Your task to perform on an android device: Open network settings Image 0: 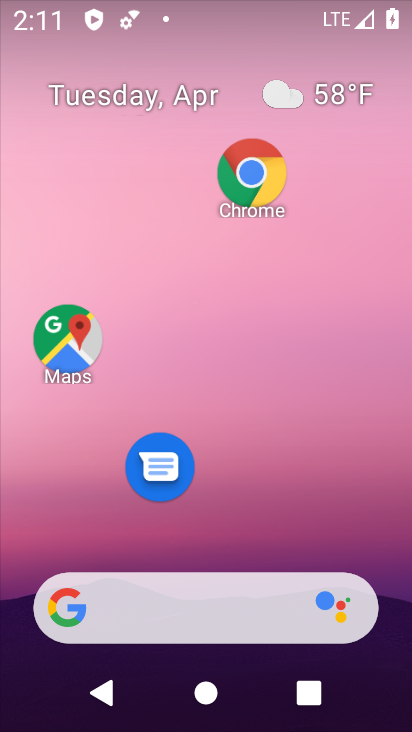
Step 0: drag from (307, 588) to (320, 103)
Your task to perform on an android device: Open network settings Image 1: 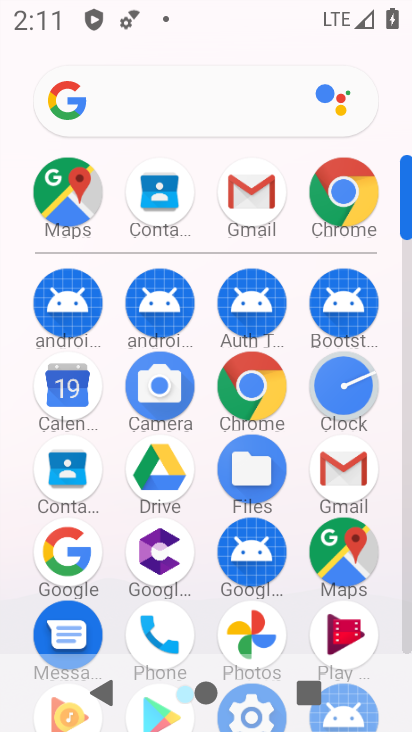
Step 1: drag from (296, 606) to (312, 179)
Your task to perform on an android device: Open network settings Image 2: 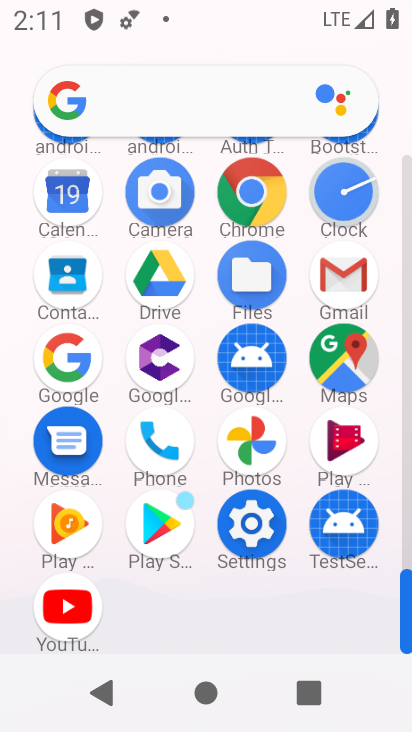
Step 2: click (253, 539)
Your task to perform on an android device: Open network settings Image 3: 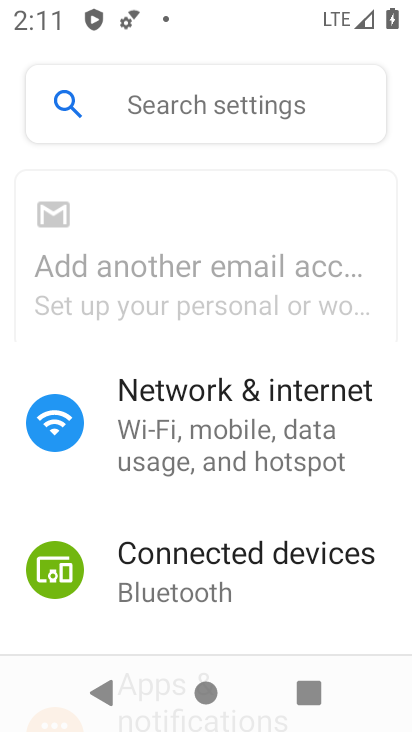
Step 3: click (284, 252)
Your task to perform on an android device: Open network settings Image 4: 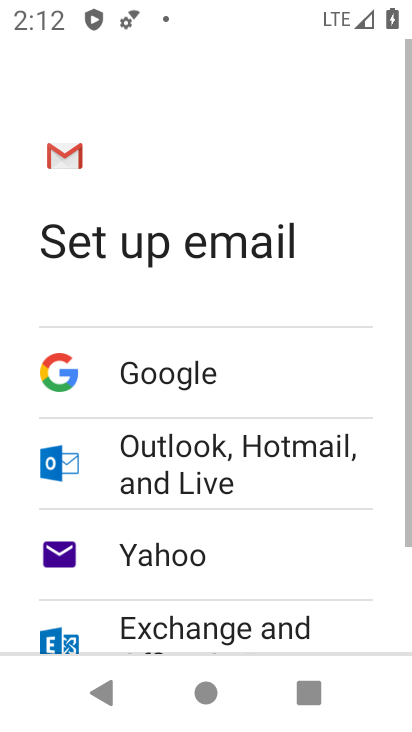
Step 4: click (90, 696)
Your task to perform on an android device: Open network settings Image 5: 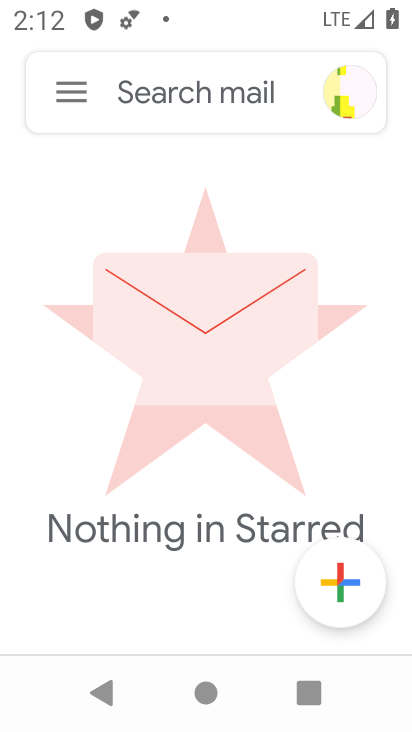
Step 5: press back button
Your task to perform on an android device: Open network settings Image 6: 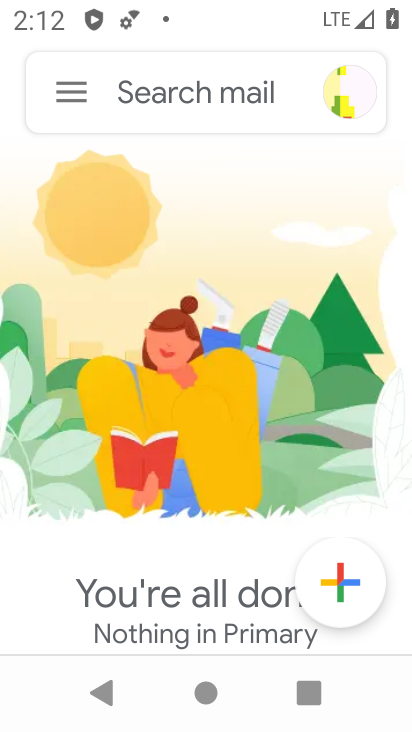
Step 6: press home button
Your task to perform on an android device: Open network settings Image 7: 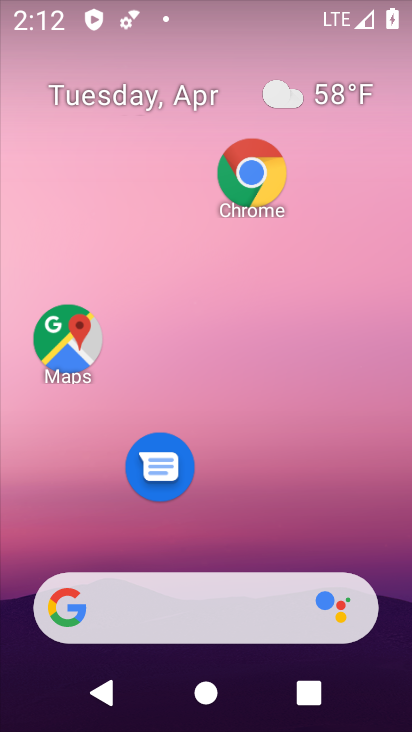
Step 7: drag from (256, 636) to (320, 147)
Your task to perform on an android device: Open network settings Image 8: 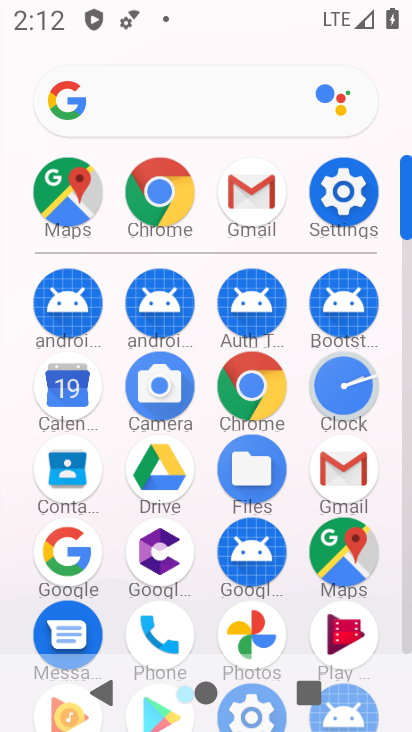
Step 8: drag from (284, 598) to (307, 88)
Your task to perform on an android device: Open network settings Image 9: 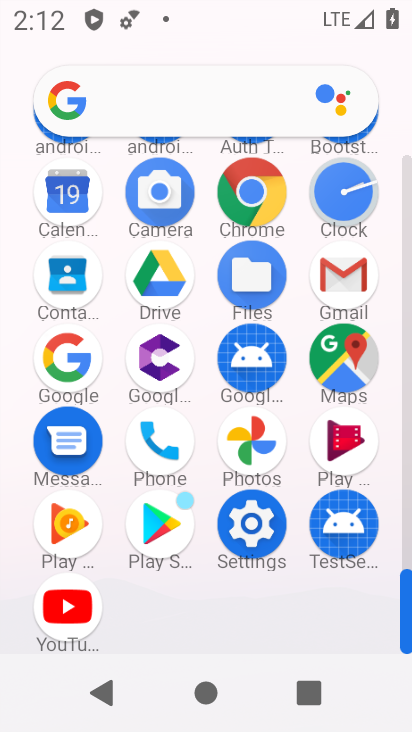
Step 9: click (251, 540)
Your task to perform on an android device: Open network settings Image 10: 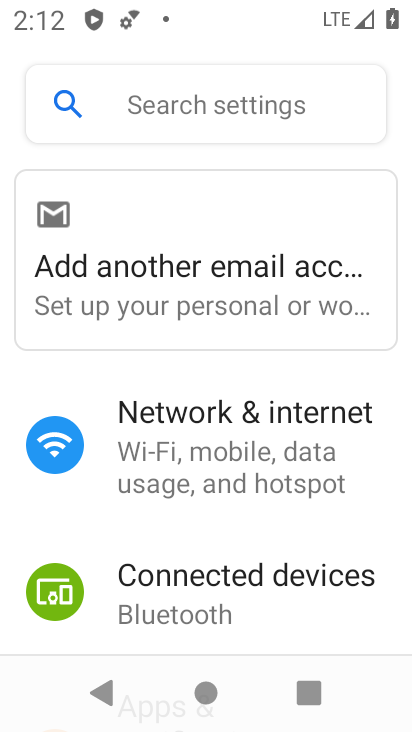
Step 10: click (246, 459)
Your task to perform on an android device: Open network settings Image 11: 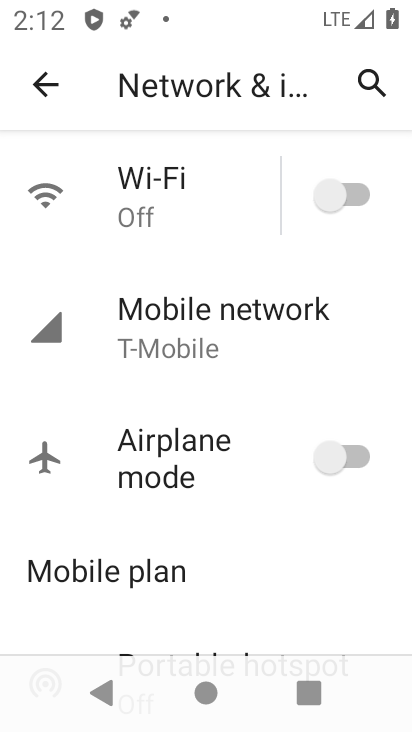
Step 11: click (253, 333)
Your task to perform on an android device: Open network settings Image 12: 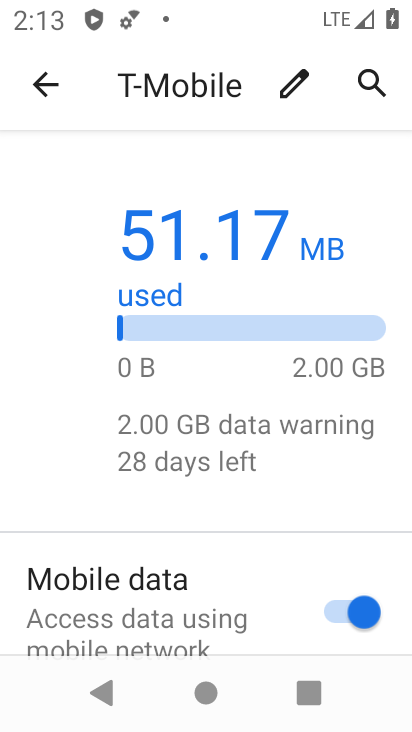
Step 12: task complete